Your task to perform on an android device: Show me popular videos on Youtube Image 0: 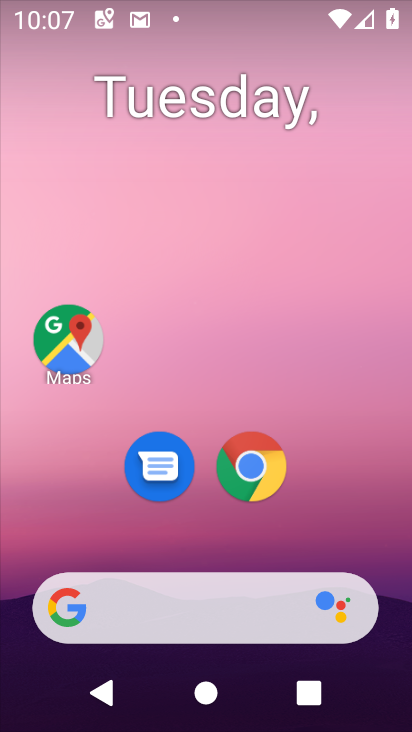
Step 0: drag from (233, 645) to (241, 94)
Your task to perform on an android device: Show me popular videos on Youtube Image 1: 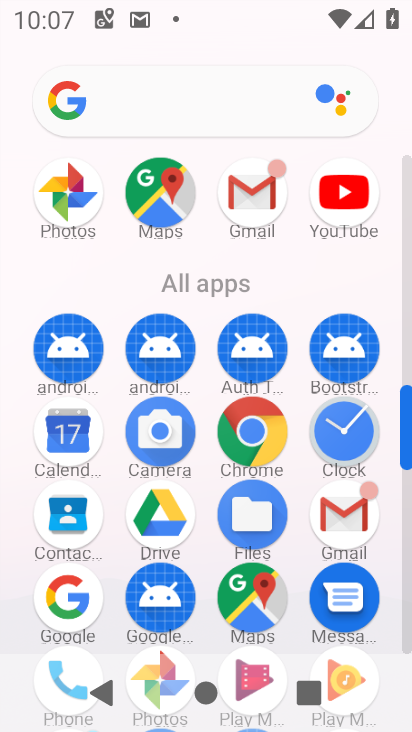
Step 1: click (316, 188)
Your task to perform on an android device: Show me popular videos on Youtube Image 2: 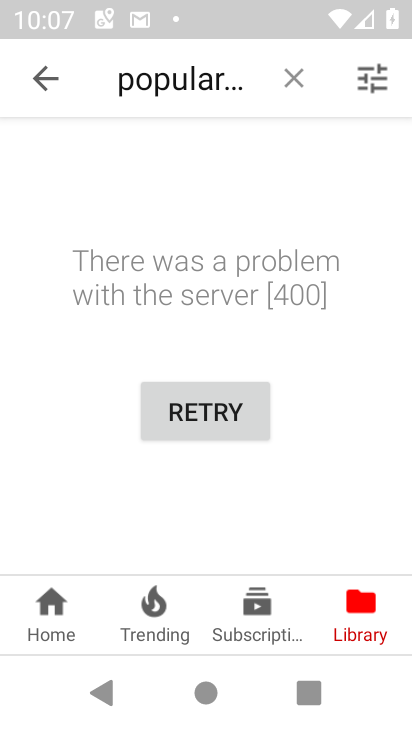
Step 2: click (208, 418)
Your task to perform on an android device: Show me popular videos on Youtube Image 3: 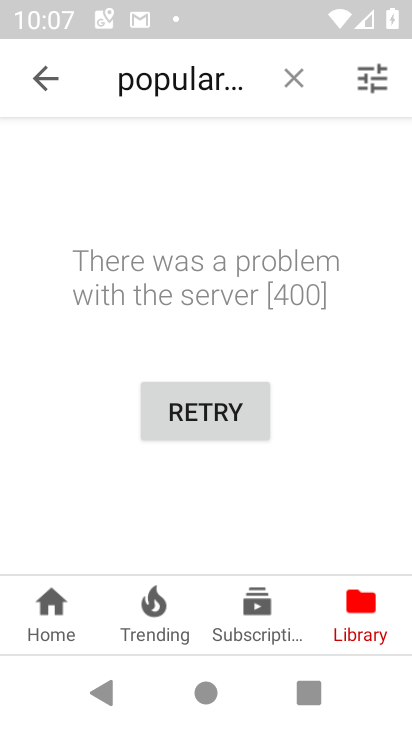
Step 3: click (222, 409)
Your task to perform on an android device: Show me popular videos on Youtube Image 4: 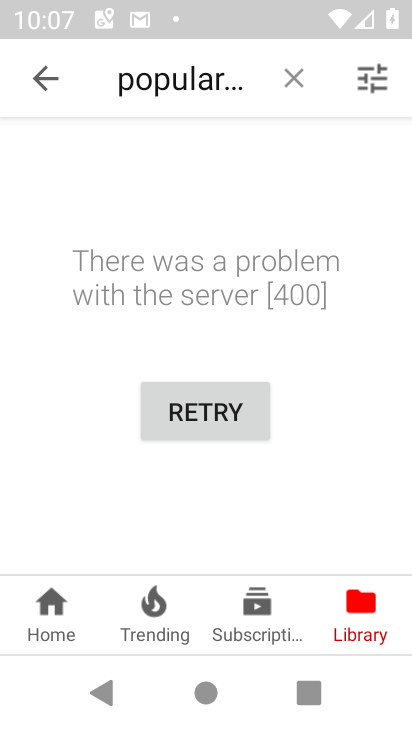
Step 4: click (221, 408)
Your task to perform on an android device: Show me popular videos on Youtube Image 5: 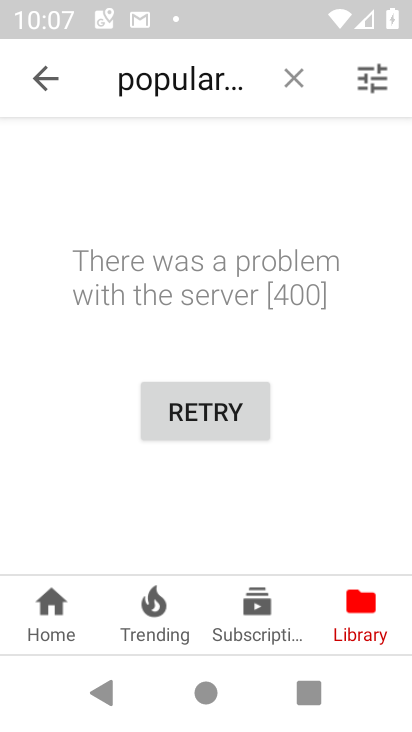
Step 5: click (236, 68)
Your task to perform on an android device: Show me popular videos on Youtube Image 6: 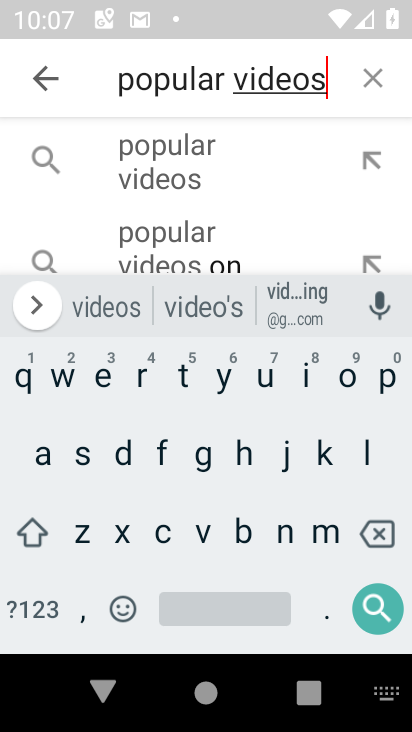
Step 6: click (378, 674)
Your task to perform on an android device: Show me popular videos on Youtube Image 7: 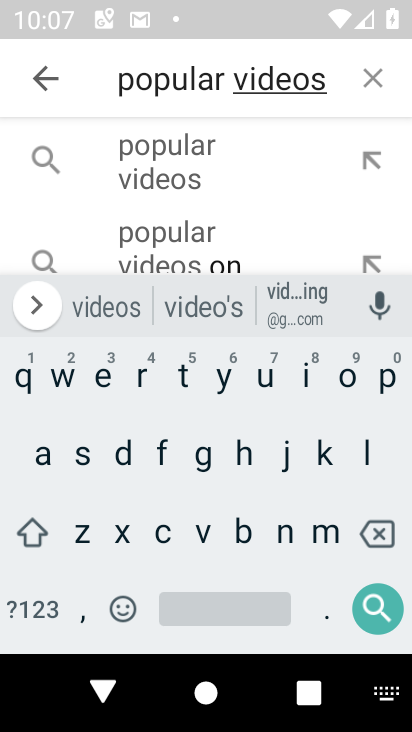
Step 7: click (377, 618)
Your task to perform on an android device: Show me popular videos on Youtube Image 8: 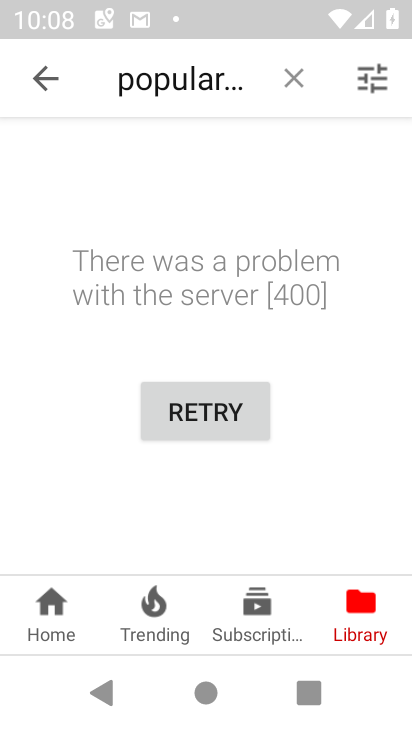
Step 8: task complete